Your task to perform on an android device: allow notifications from all sites in the chrome app Image 0: 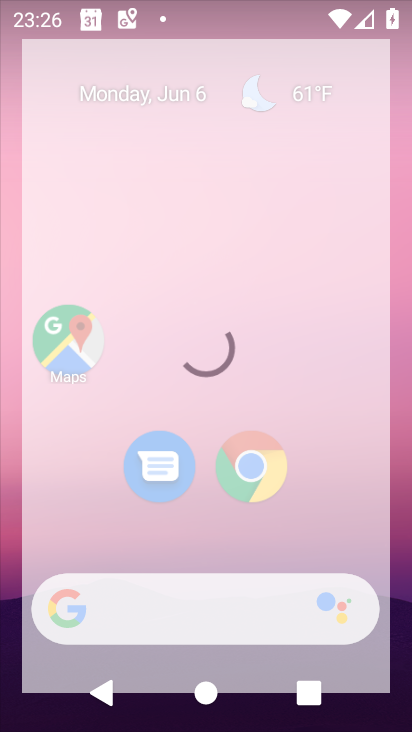
Step 0: press home button
Your task to perform on an android device: allow notifications from all sites in the chrome app Image 1: 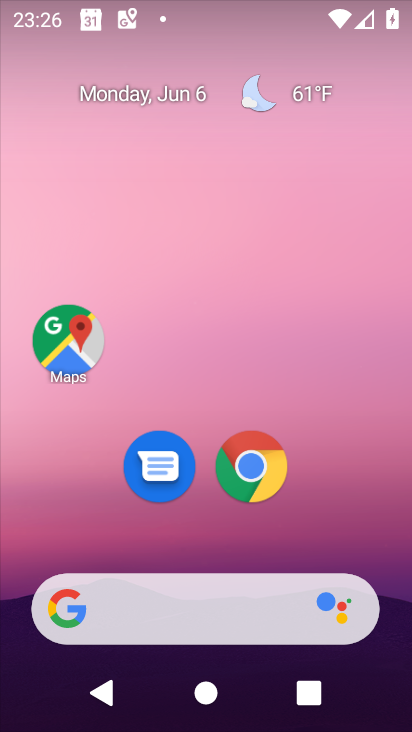
Step 1: drag from (372, 497) to (339, 0)
Your task to perform on an android device: allow notifications from all sites in the chrome app Image 2: 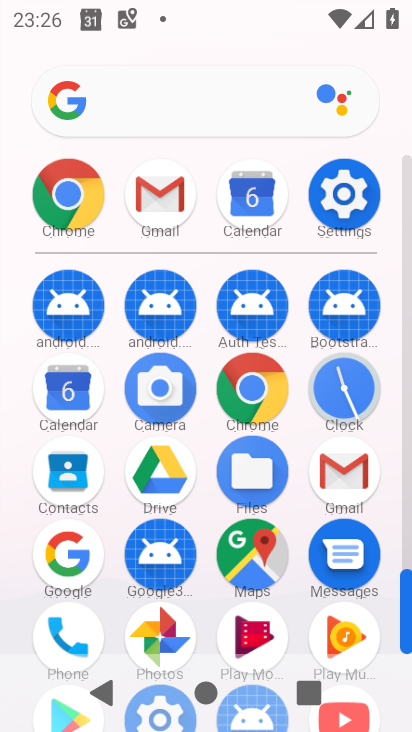
Step 2: click (356, 183)
Your task to perform on an android device: allow notifications from all sites in the chrome app Image 3: 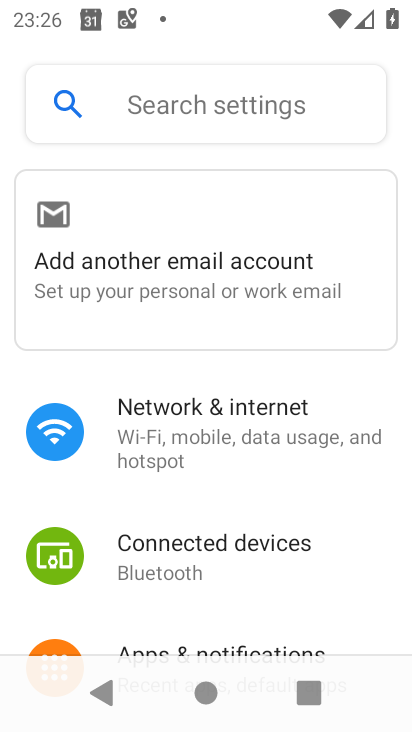
Step 3: press home button
Your task to perform on an android device: allow notifications from all sites in the chrome app Image 4: 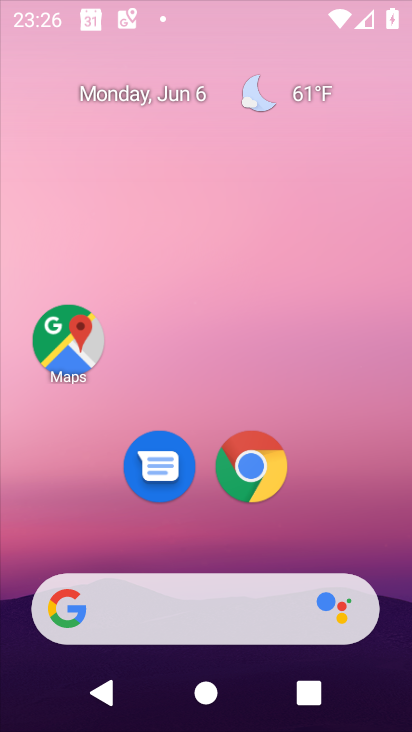
Step 4: drag from (320, 556) to (202, 154)
Your task to perform on an android device: allow notifications from all sites in the chrome app Image 5: 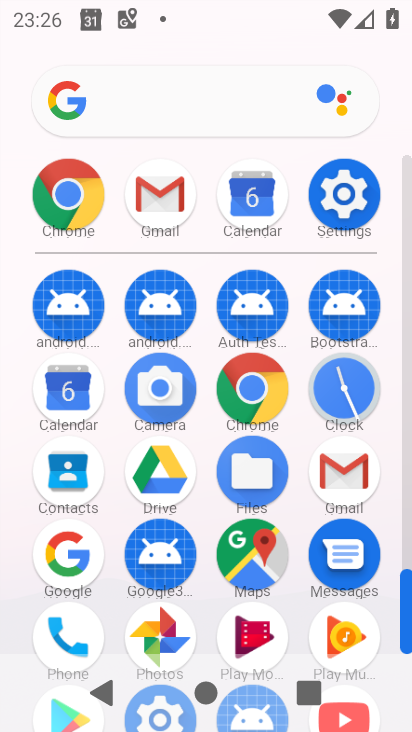
Step 5: click (73, 159)
Your task to perform on an android device: allow notifications from all sites in the chrome app Image 6: 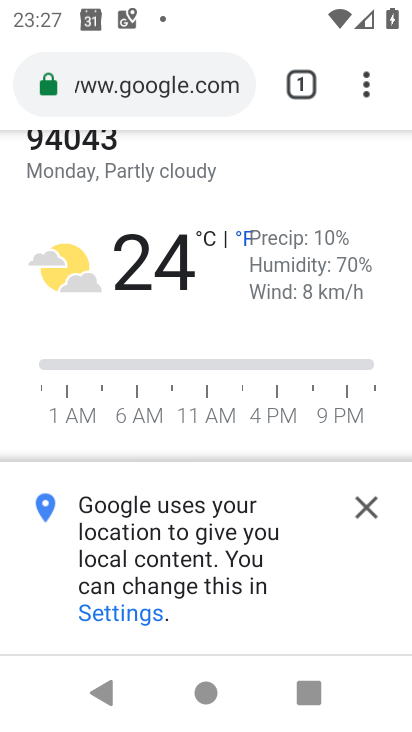
Step 6: drag from (361, 82) to (75, 517)
Your task to perform on an android device: allow notifications from all sites in the chrome app Image 7: 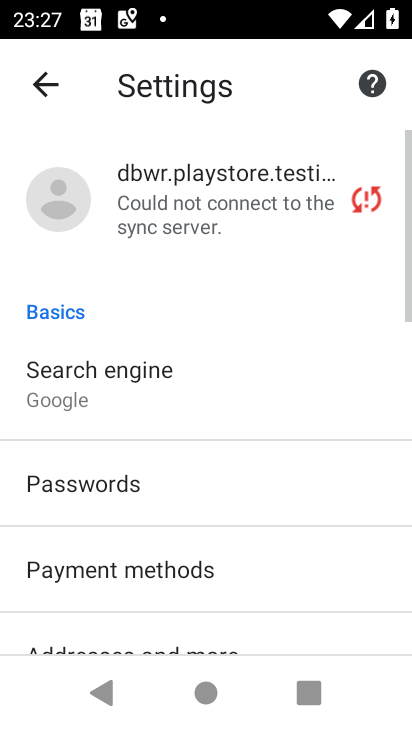
Step 7: drag from (226, 608) to (231, 143)
Your task to perform on an android device: allow notifications from all sites in the chrome app Image 8: 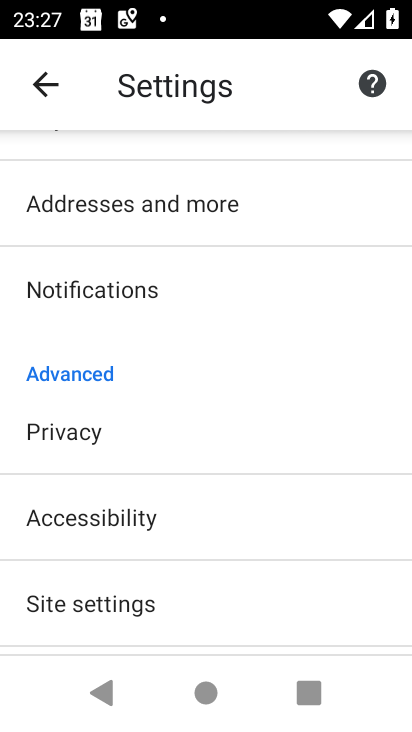
Step 8: drag from (231, 512) to (231, 428)
Your task to perform on an android device: allow notifications from all sites in the chrome app Image 9: 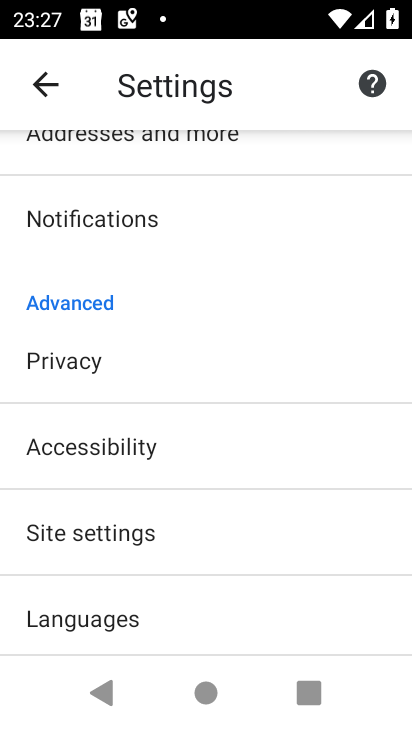
Step 9: click (170, 529)
Your task to perform on an android device: allow notifications from all sites in the chrome app Image 10: 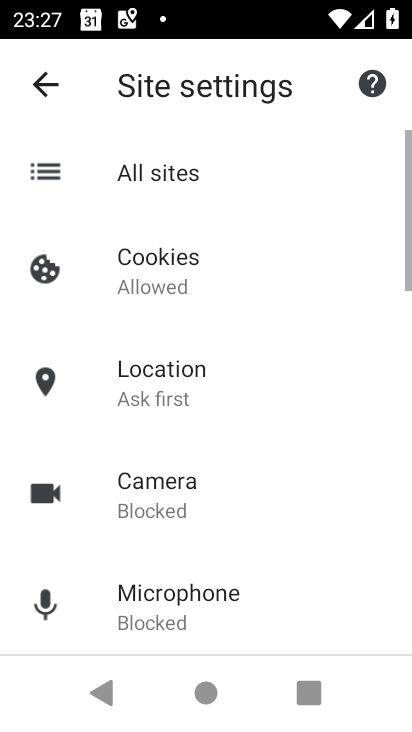
Step 10: click (157, 188)
Your task to perform on an android device: allow notifications from all sites in the chrome app Image 11: 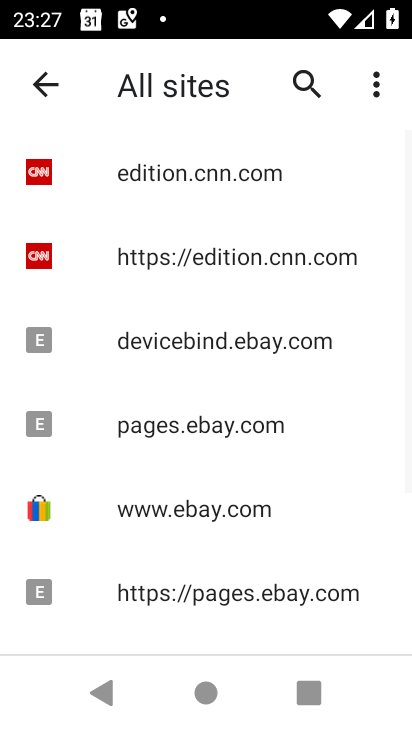
Step 11: drag from (176, 534) to (168, 160)
Your task to perform on an android device: allow notifications from all sites in the chrome app Image 12: 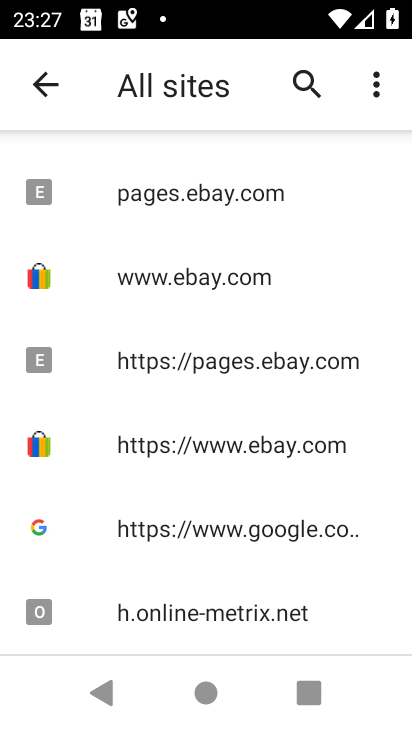
Step 12: click (163, 534)
Your task to perform on an android device: allow notifications from all sites in the chrome app Image 13: 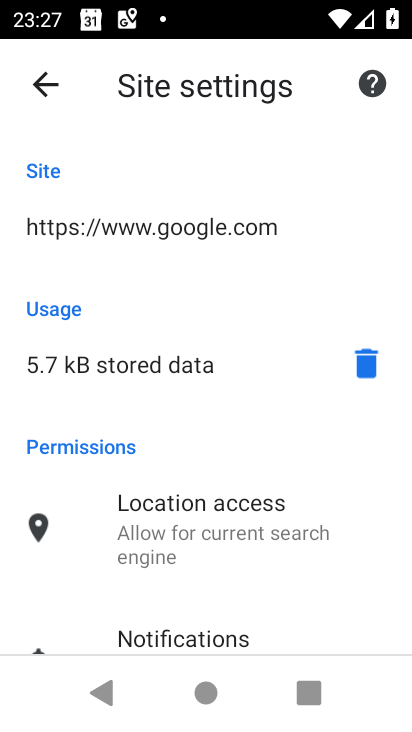
Step 13: click (158, 632)
Your task to perform on an android device: allow notifications from all sites in the chrome app Image 14: 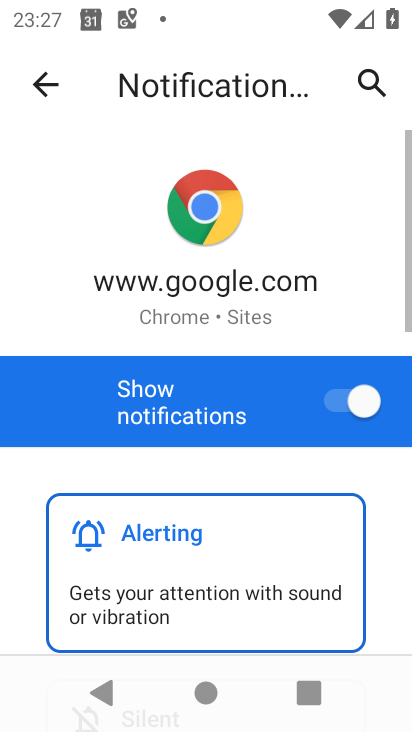
Step 14: drag from (267, 602) to (240, 4)
Your task to perform on an android device: allow notifications from all sites in the chrome app Image 15: 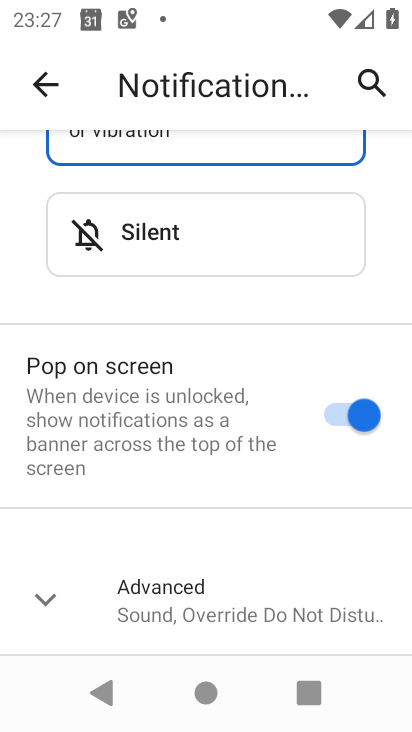
Step 15: click (208, 567)
Your task to perform on an android device: allow notifications from all sites in the chrome app Image 16: 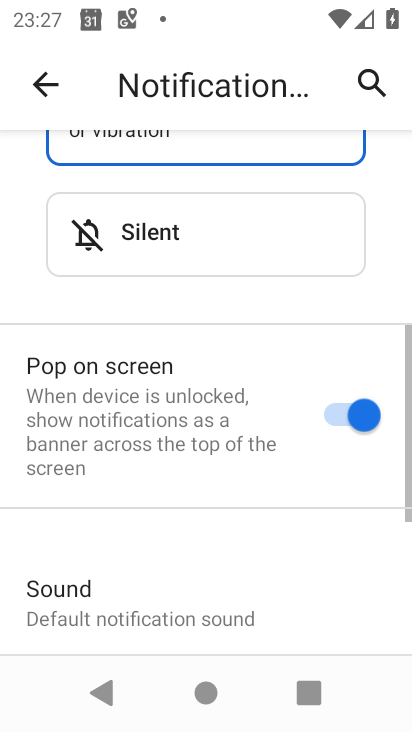
Step 16: task complete